Your task to perform on an android device: turn off picture-in-picture Image 0: 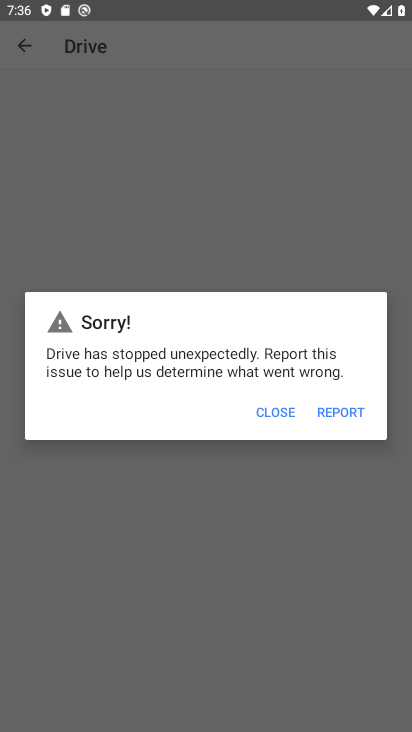
Step 0: press home button
Your task to perform on an android device: turn off picture-in-picture Image 1: 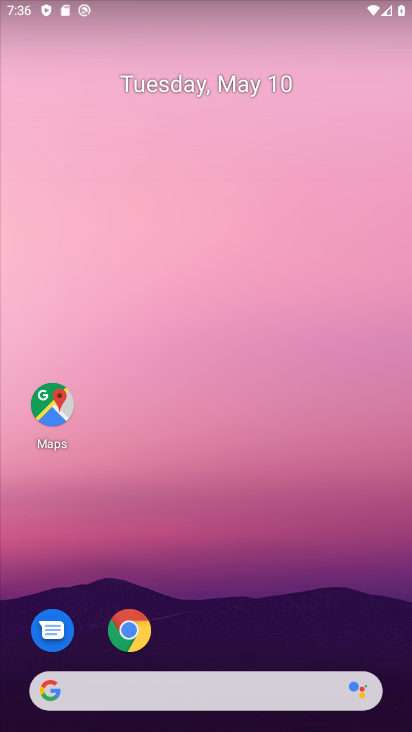
Step 1: click (127, 628)
Your task to perform on an android device: turn off picture-in-picture Image 2: 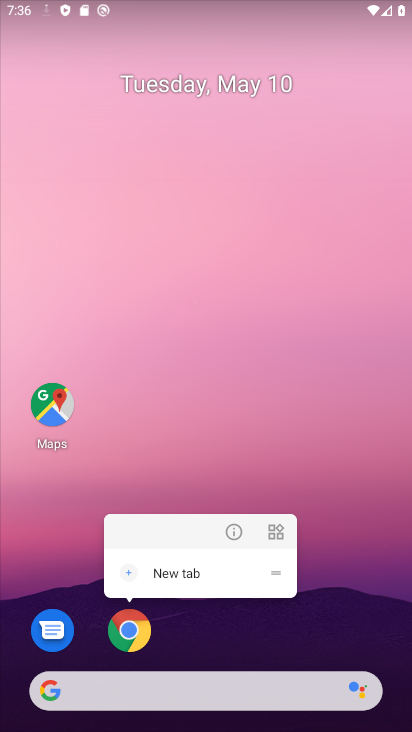
Step 2: click (236, 532)
Your task to perform on an android device: turn off picture-in-picture Image 3: 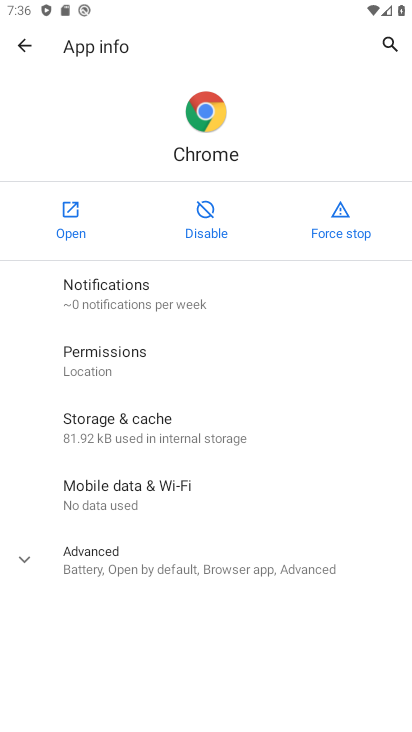
Step 3: click (146, 575)
Your task to perform on an android device: turn off picture-in-picture Image 4: 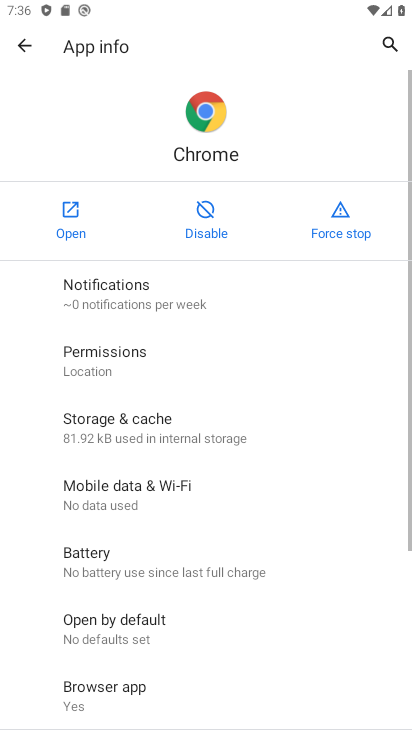
Step 4: drag from (220, 655) to (140, 97)
Your task to perform on an android device: turn off picture-in-picture Image 5: 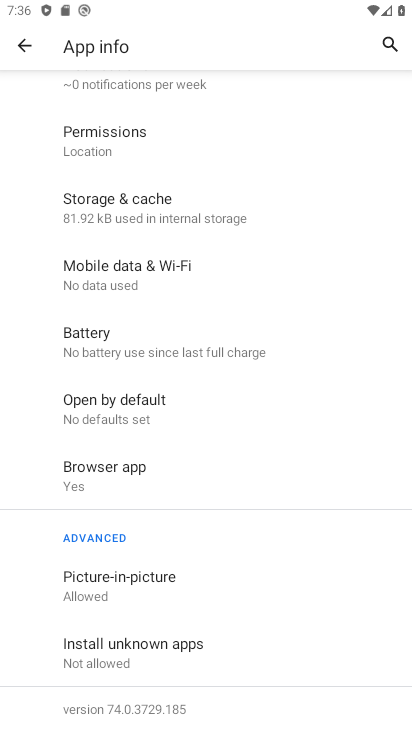
Step 5: click (107, 585)
Your task to perform on an android device: turn off picture-in-picture Image 6: 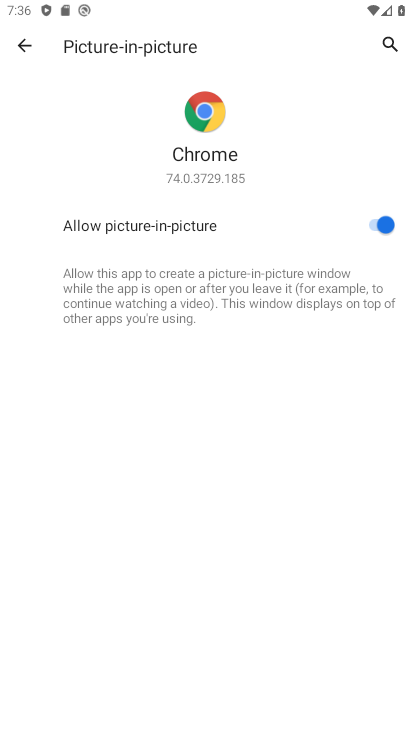
Step 6: click (379, 226)
Your task to perform on an android device: turn off picture-in-picture Image 7: 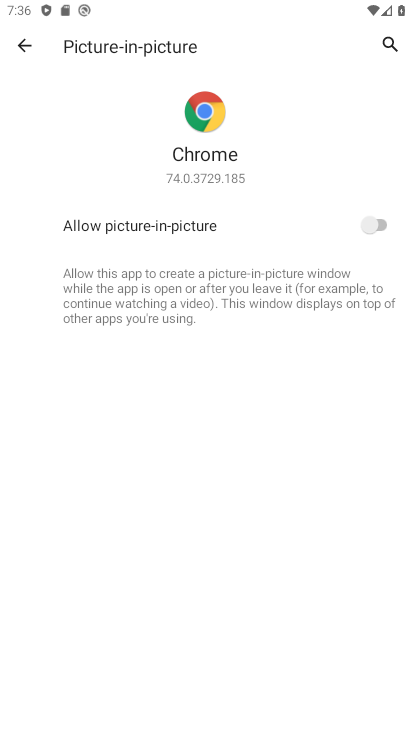
Step 7: task complete